Your task to perform on an android device: What's the weather going to be tomorrow? Image 0: 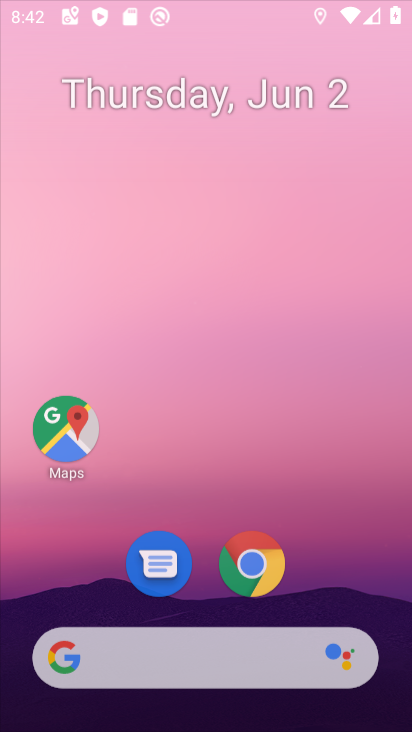
Step 0: press home button
Your task to perform on an android device: What's the weather going to be tomorrow? Image 1: 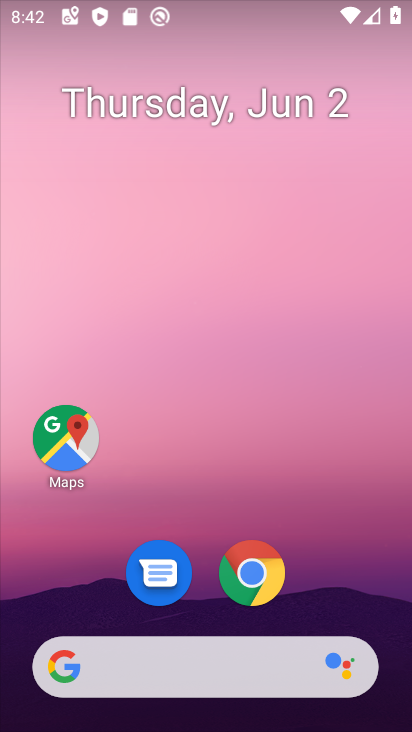
Step 1: click (272, 572)
Your task to perform on an android device: What's the weather going to be tomorrow? Image 2: 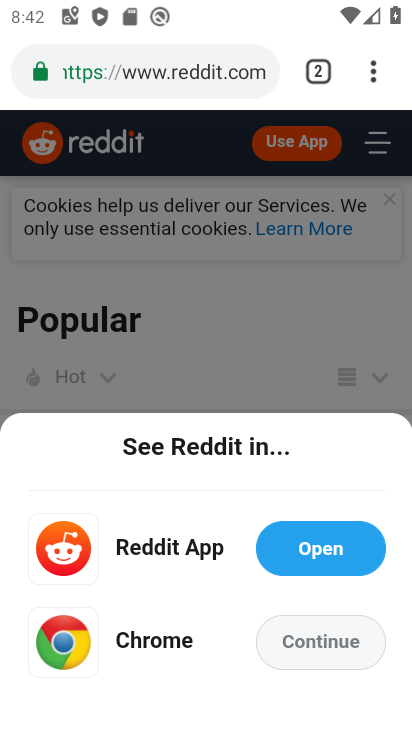
Step 2: click (237, 68)
Your task to perform on an android device: What's the weather going to be tomorrow? Image 3: 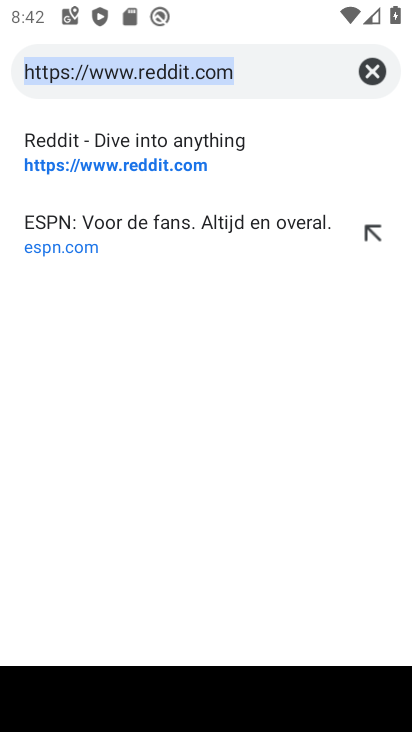
Step 3: click (381, 69)
Your task to perform on an android device: What's the weather going to be tomorrow? Image 4: 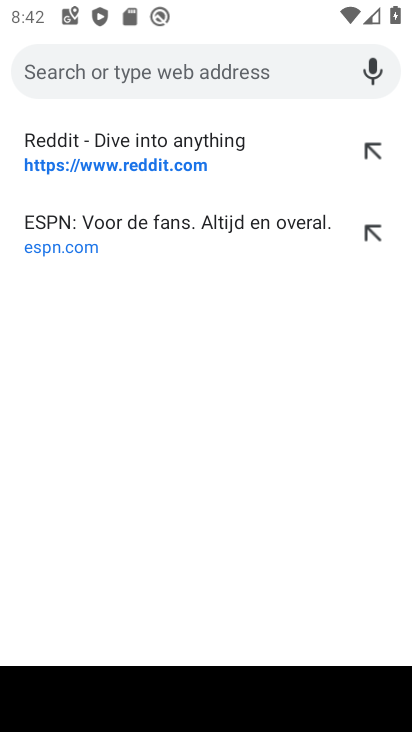
Step 4: type "What's the weather going to be tomorrow?"
Your task to perform on an android device: What's the weather going to be tomorrow? Image 5: 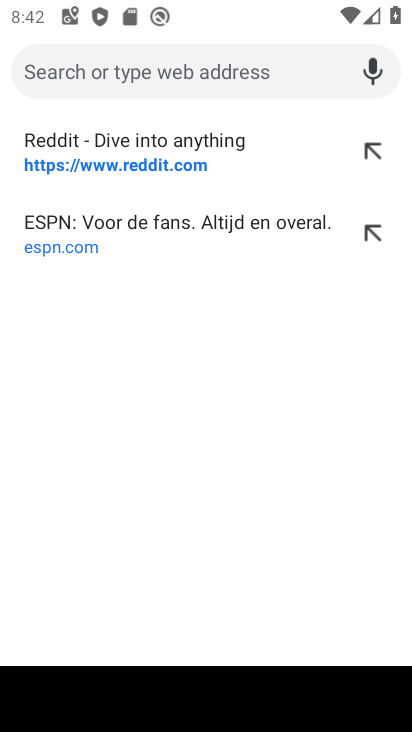
Step 5: click (223, 173)
Your task to perform on an android device: What's the weather going to be tomorrow? Image 6: 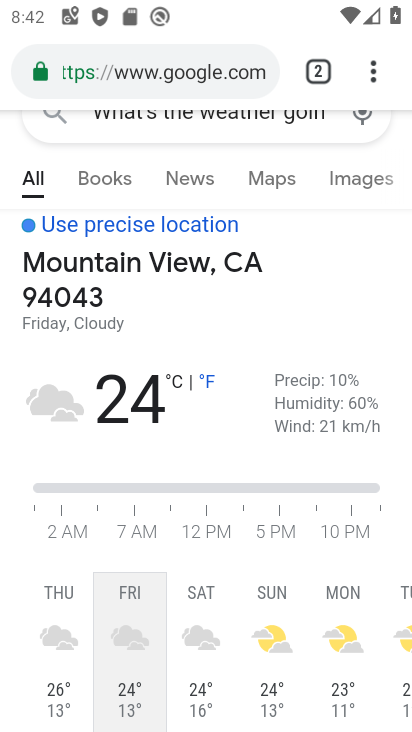
Step 6: task complete